Your task to perform on an android device: turn off translation in the chrome app Image 0: 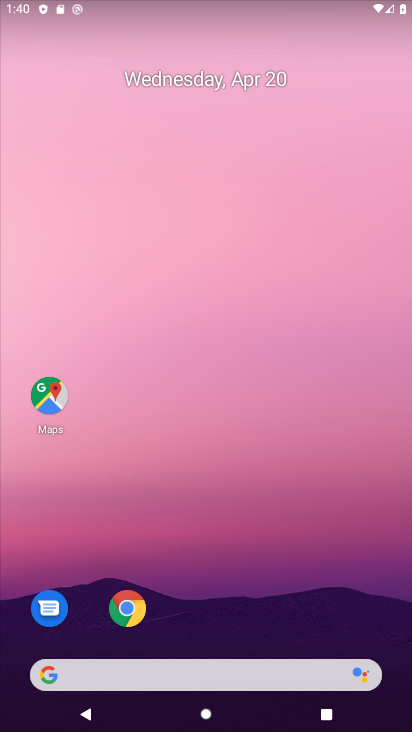
Step 0: drag from (222, 433) to (257, 122)
Your task to perform on an android device: turn off translation in the chrome app Image 1: 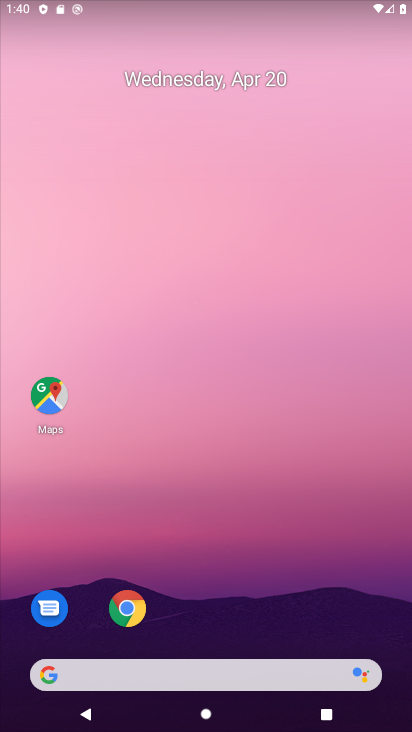
Step 1: drag from (209, 598) to (250, 57)
Your task to perform on an android device: turn off translation in the chrome app Image 2: 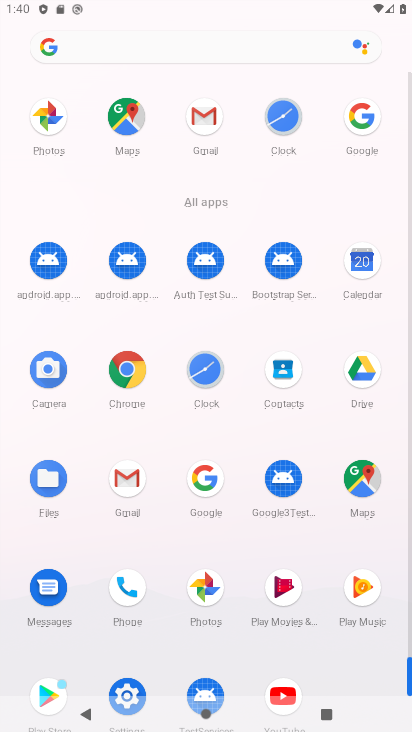
Step 2: click (129, 375)
Your task to perform on an android device: turn off translation in the chrome app Image 3: 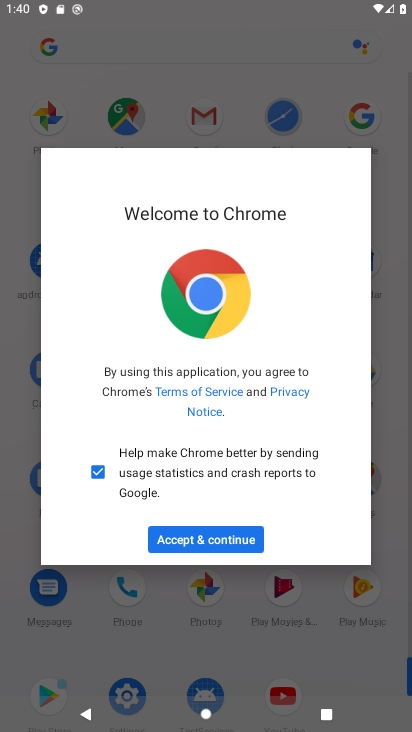
Step 3: click (215, 548)
Your task to perform on an android device: turn off translation in the chrome app Image 4: 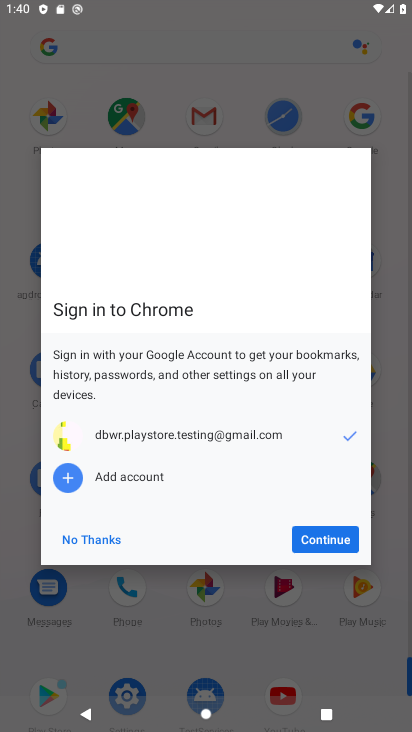
Step 4: click (298, 536)
Your task to perform on an android device: turn off translation in the chrome app Image 5: 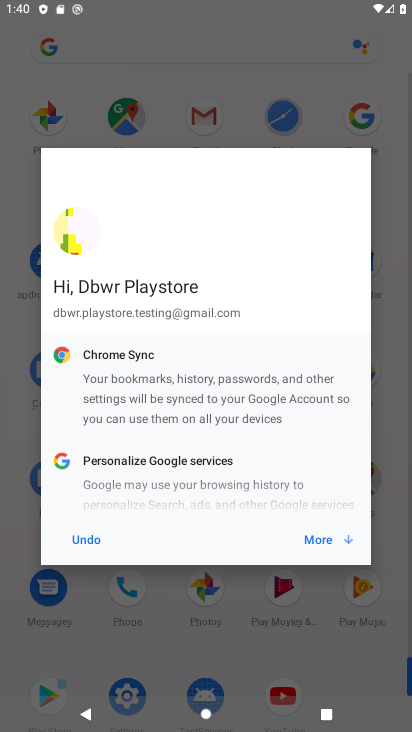
Step 5: click (326, 545)
Your task to perform on an android device: turn off translation in the chrome app Image 6: 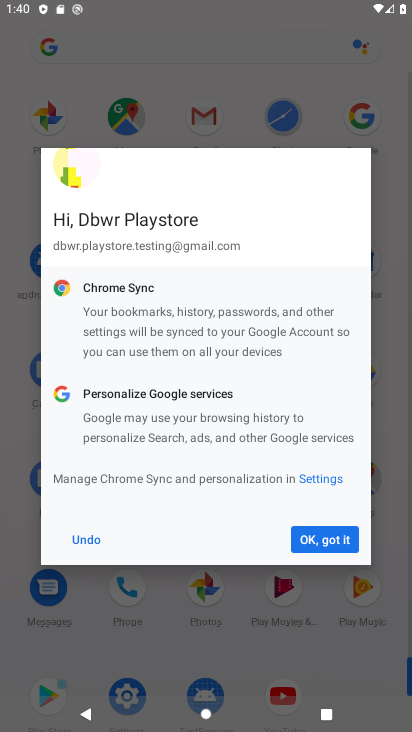
Step 6: click (326, 545)
Your task to perform on an android device: turn off translation in the chrome app Image 7: 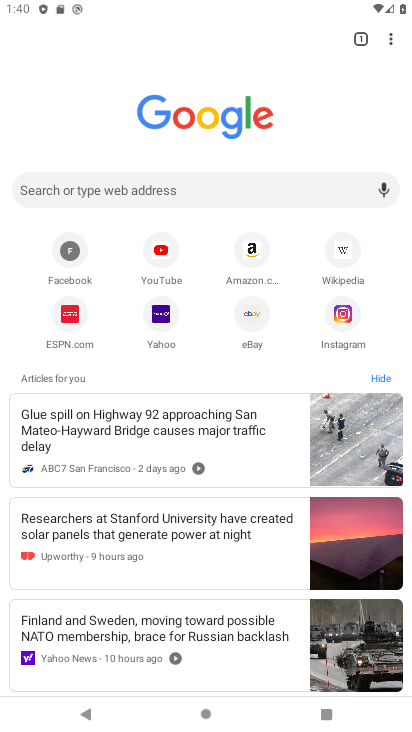
Step 7: drag from (395, 38) to (246, 339)
Your task to perform on an android device: turn off translation in the chrome app Image 8: 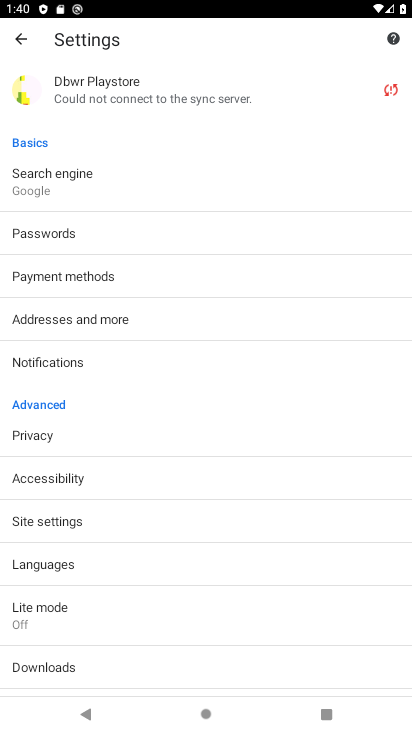
Step 8: click (96, 566)
Your task to perform on an android device: turn off translation in the chrome app Image 9: 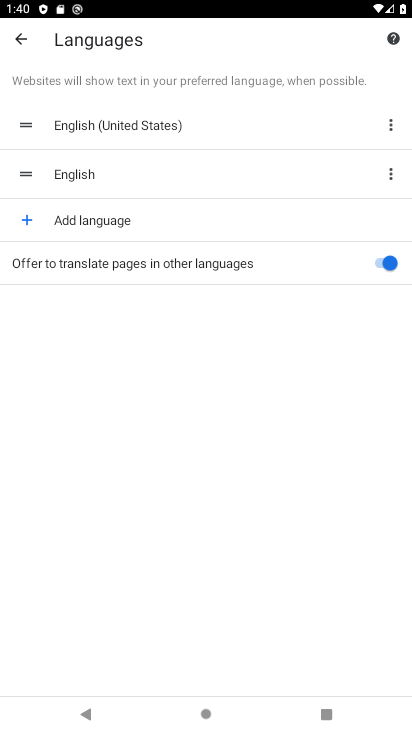
Step 9: click (380, 265)
Your task to perform on an android device: turn off translation in the chrome app Image 10: 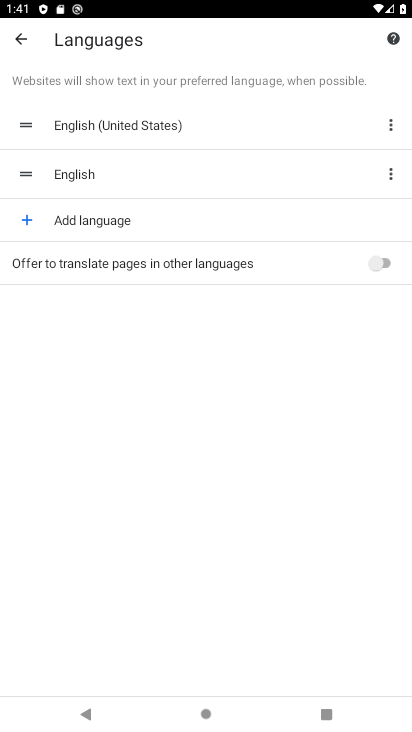
Step 10: task complete